Your task to perform on an android device: remove spam from my inbox in the gmail app Image 0: 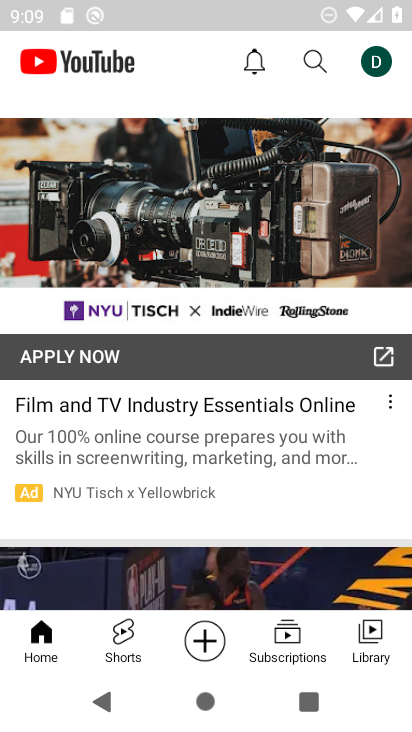
Step 0: press home button
Your task to perform on an android device: remove spam from my inbox in the gmail app Image 1: 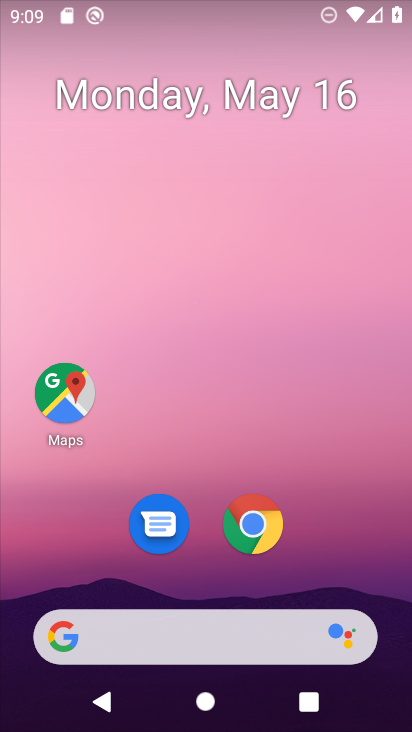
Step 1: drag from (311, 556) to (326, 129)
Your task to perform on an android device: remove spam from my inbox in the gmail app Image 2: 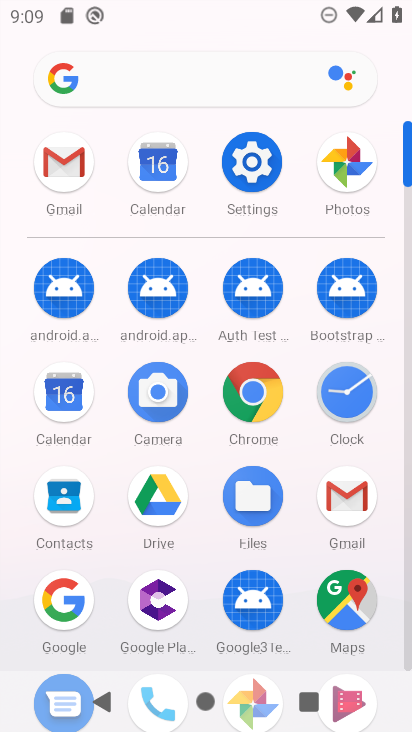
Step 2: click (65, 156)
Your task to perform on an android device: remove spam from my inbox in the gmail app Image 3: 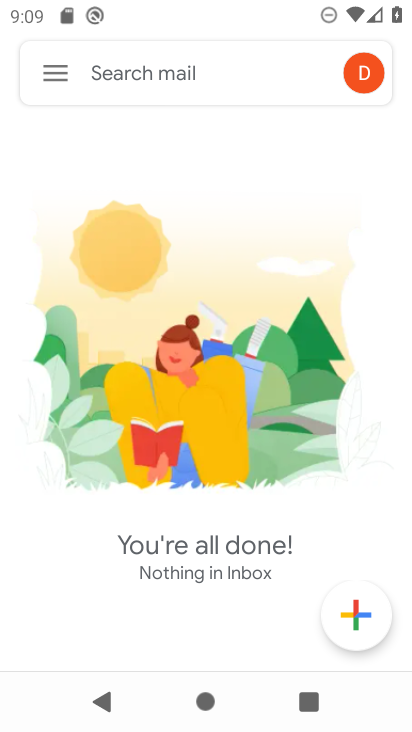
Step 3: click (52, 63)
Your task to perform on an android device: remove spam from my inbox in the gmail app Image 4: 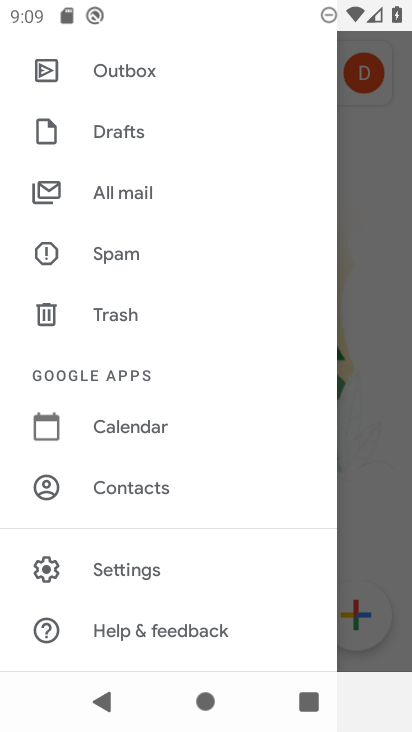
Step 4: click (114, 243)
Your task to perform on an android device: remove spam from my inbox in the gmail app Image 5: 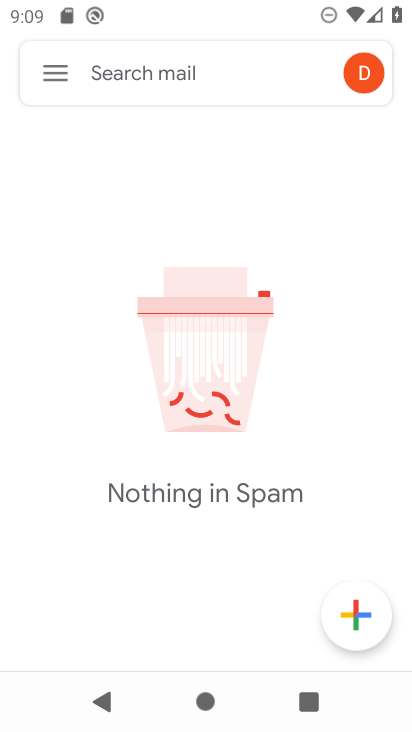
Step 5: task complete